Your task to perform on an android device: show emergency info Image 0: 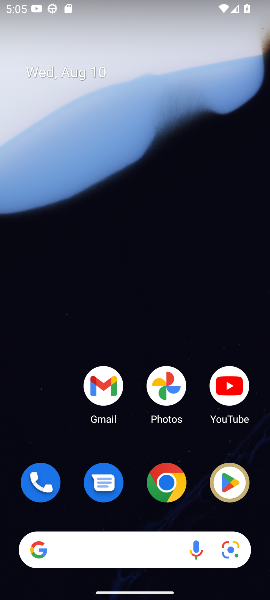
Step 0: drag from (57, 431) to (70, 68)
Your task to perform on an android device: show emergency info Image 1: 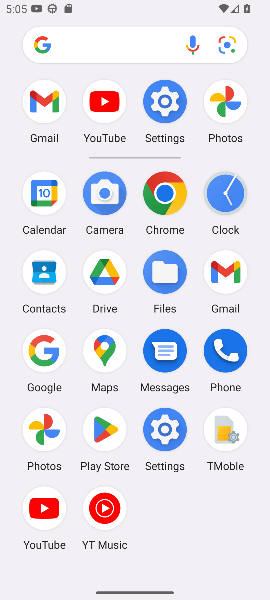
Step 1: click (169, 103)
Your task to perform on an android device: show emergency info Image 2: 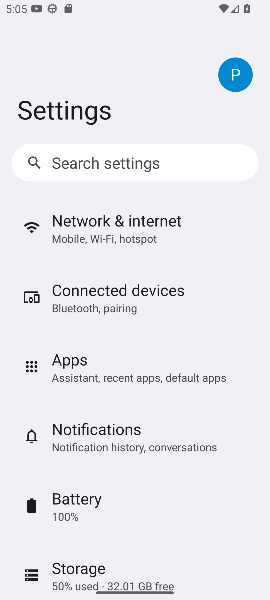
Step 2: drag from (133, 509) to (167, 135)
Your task to perform on an android device: show emergency info Image 3: 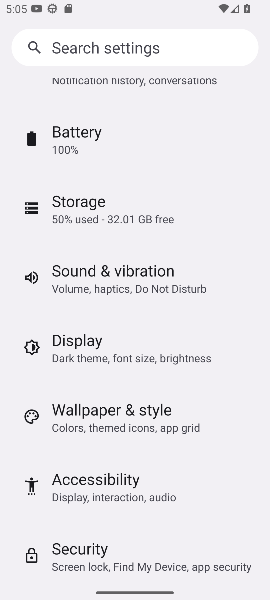
Step 3: drag from (141, 456) to (175, 97)
Your task to perform on an android device: show emergency info Image 4: 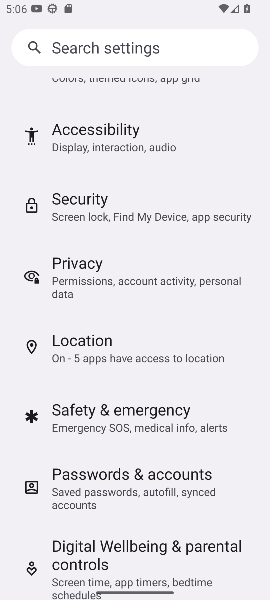
Step 4: drag from (140, 393) to (170, 77)
Your task to perform on an android device: show emergency info Image 5: 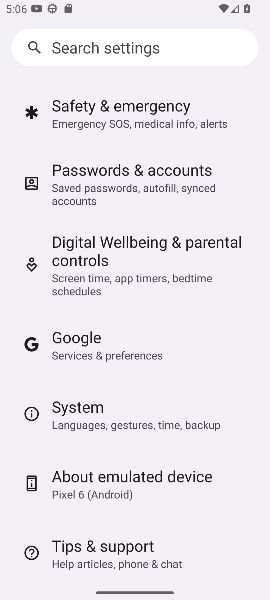
Step 5: click (140, 484)
Your task to perform on an android device: show emergency info Image 6: 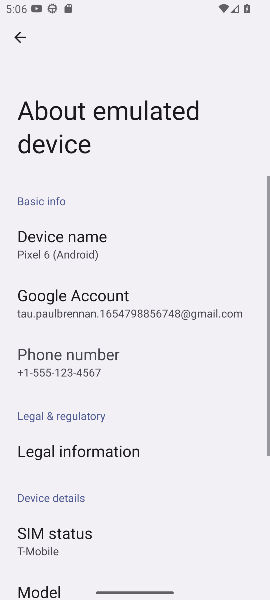
Step 6: drag from (140, 482) to (175, 150)
Your task to perform on an android device: show emergency info Image 7: 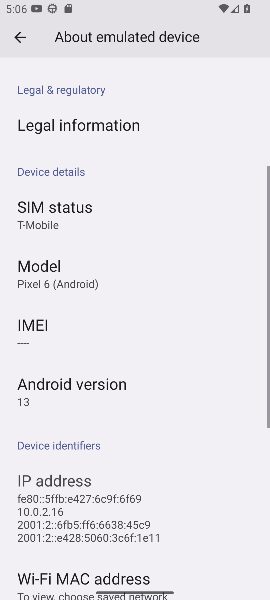
Step 7: drag from (183, 431) to (205, 127)
Your task to perform on an android device: show emergency info Image 8: 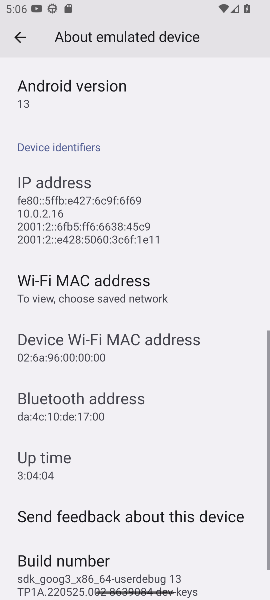
Step 8: drag from (182, 137) to (146, 505)
Your task to perform on an android device: show emergency info Image 9: 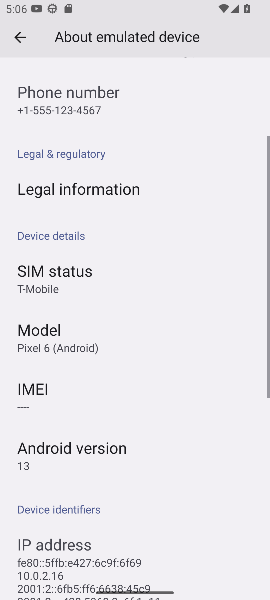
Step 9: drag from (153, 290) to (148, 532)
Your task to perform on an android device: show emergency info Image 10: 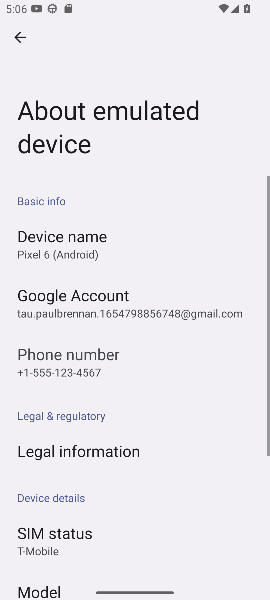
Step 10: drag from (161, 390) to (178, 173)
Your task to perform on an android device: show emergency info Image 11: 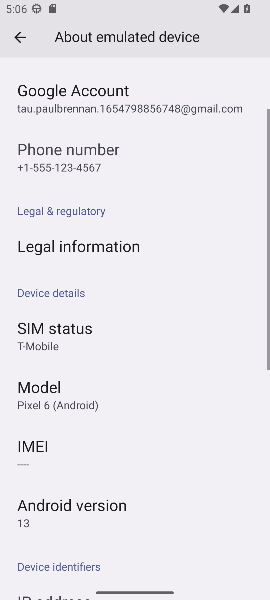
Step 11: click (134, 248)
Your task to perform on an android device: show emergency info Image 12: 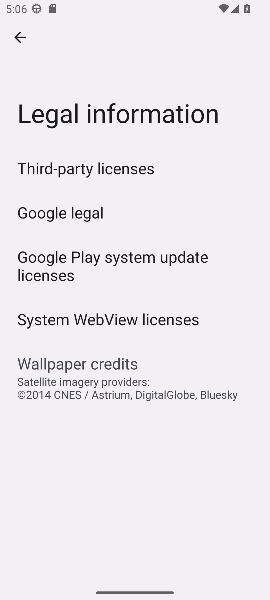
Step 12: click (24, 36)
Your task to perform on an android device: show emergency info Image 13: 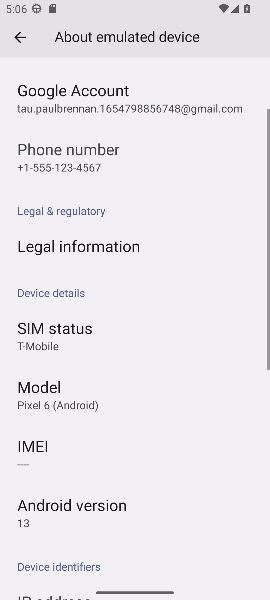
Step 13: task complete